Your task to perform on an android device: turn off priority inbox in the gmail app Image 0: 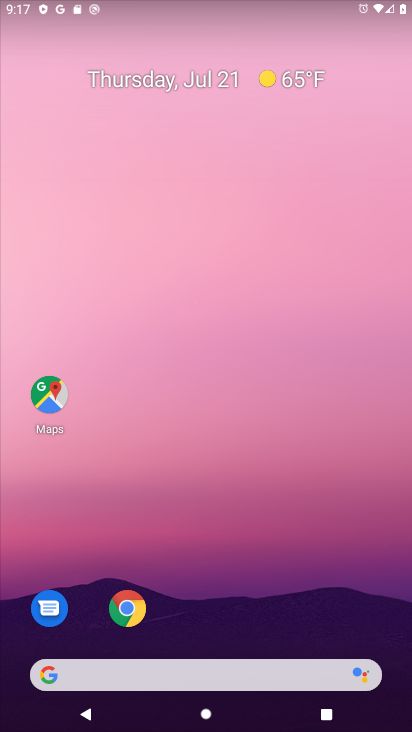
Step 0: drag from (249, 501) to (200, 113)
Your task to perform on an android device: turn off priority inbox in the gmail app Image 1: 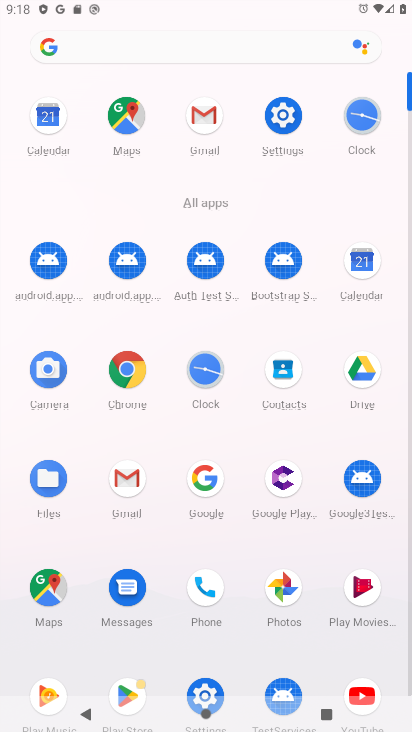
Step 1: click (126, 478)
Your task to perform on an android device: turn off priority inbox in the gmail app Image 2: 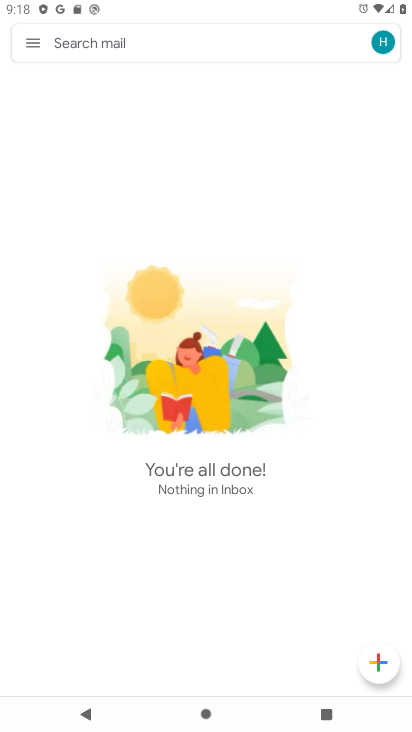
Step 2: task complete